Your task to perform on an android device: create a new album in the google photos Image 0: 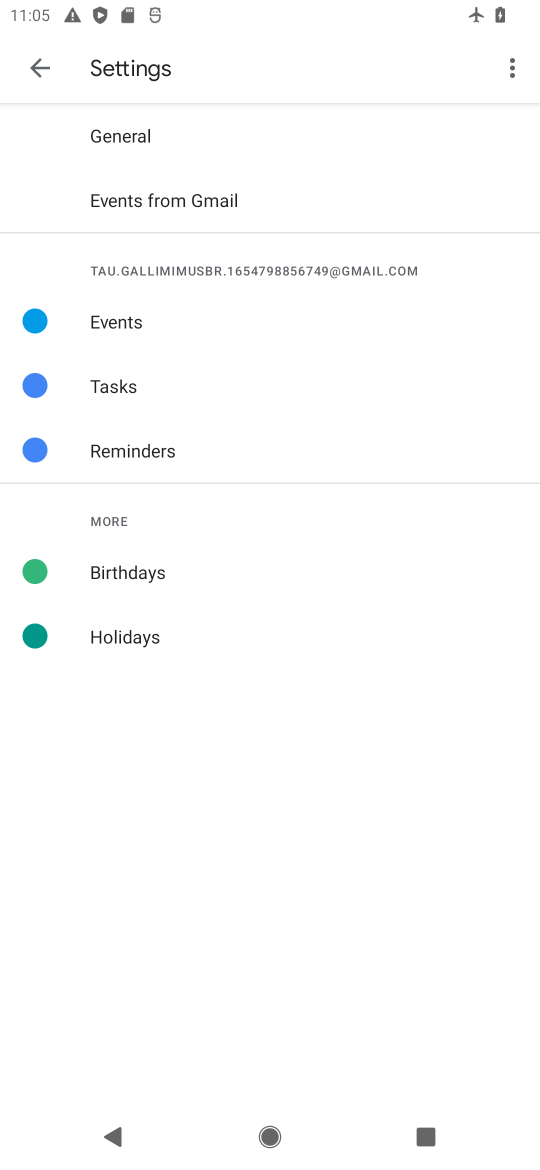
Step 0: press home button
Your task to perform on an android device: create a new album in the google photos Image 1: 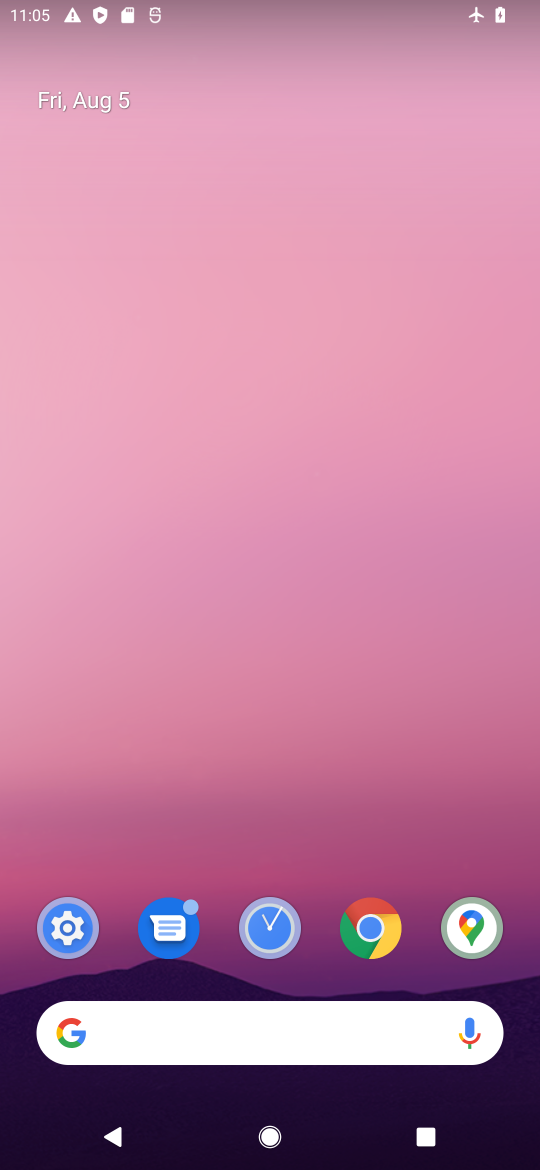
Step 1: drag from (234, 961) to (295, 16)
Your task to perform on an android device: create a new album in the google photos Image 2: 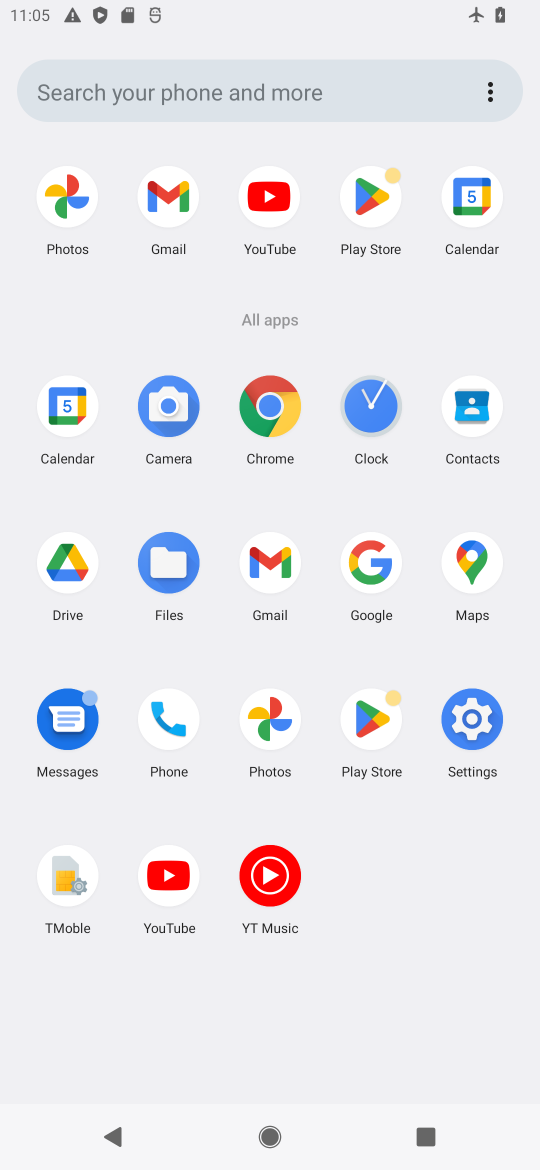
Step 2: click (270, 716)
Your task to perform on an android device: create a new album in the google photos Image 3: 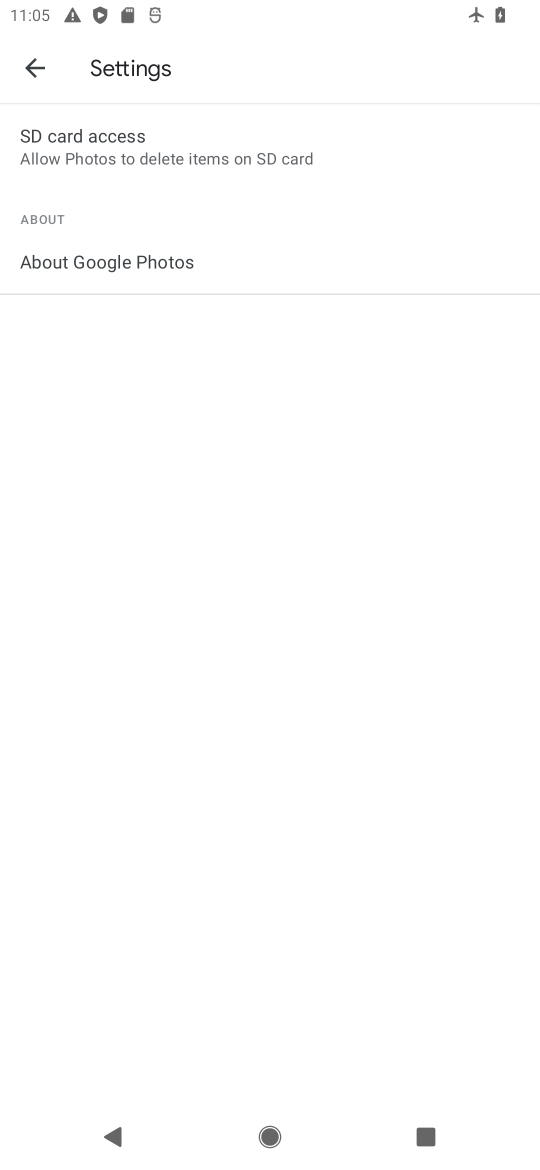
Step 3: click (39, 65)
Your task to perform on an android device: create a new album in the google photos Image 4: 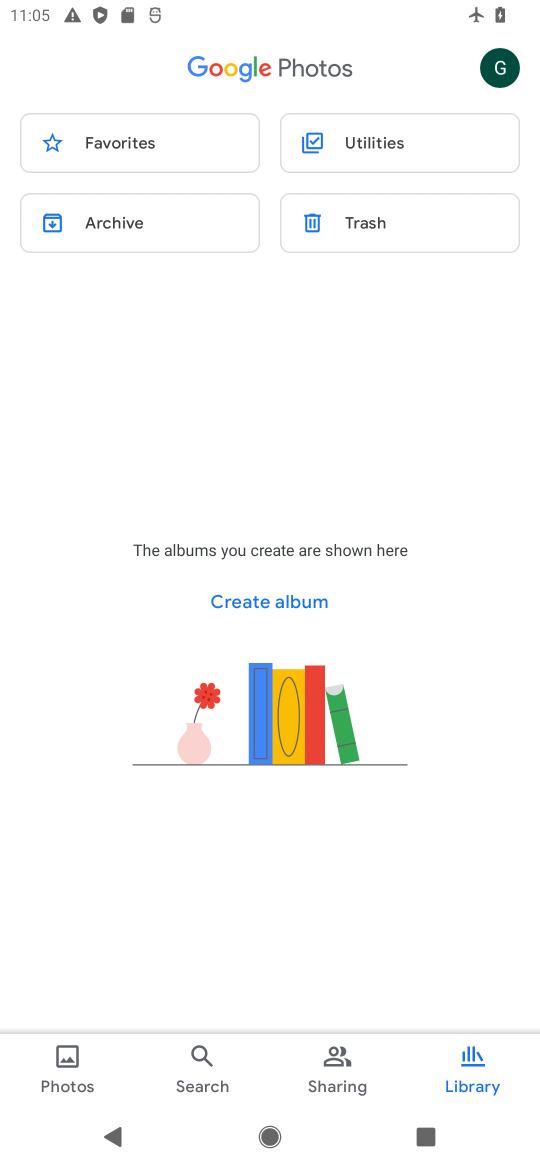
Step 4: click (64, 1059)
Your task to perform on an android device: create a new album in the google photos Image 5: 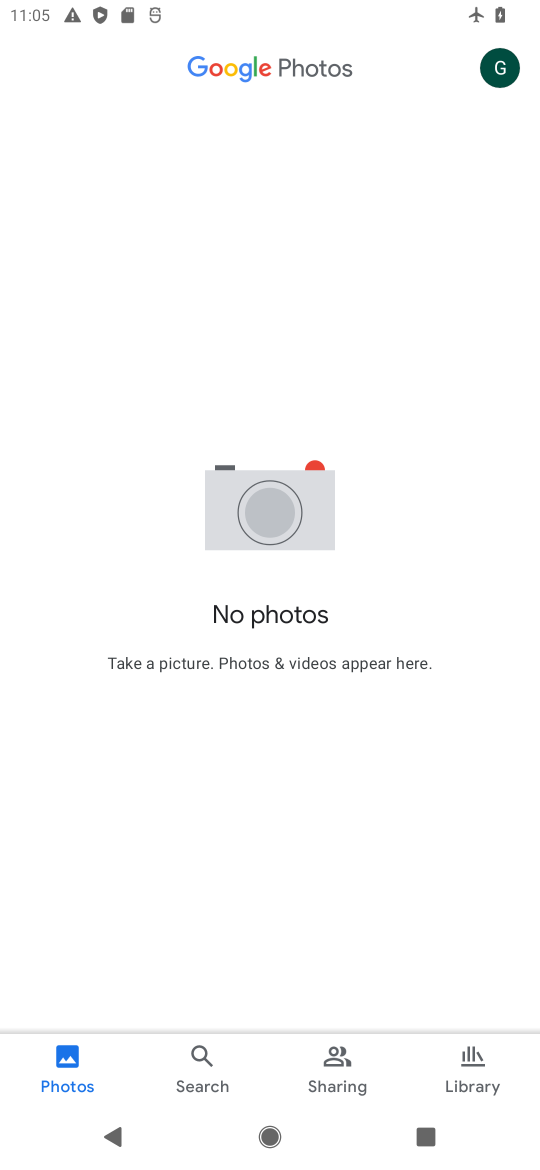
Step 5: task complete